Your task to perform on an android device: find photos in the google photos app Image 0: 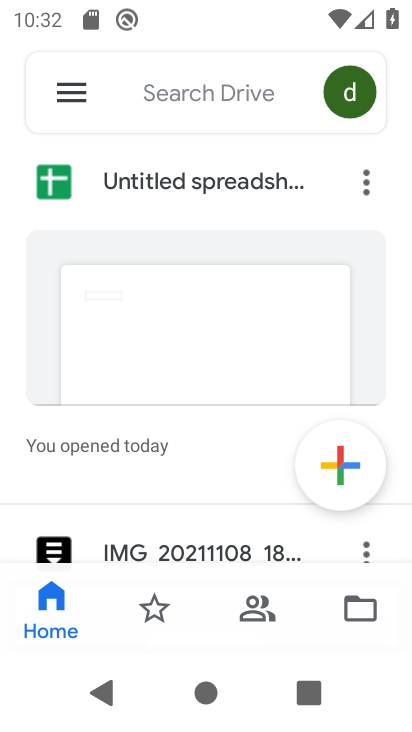
Step 0: press home button
Your task to perform on an android device: find photos in the google photos app Image 1: 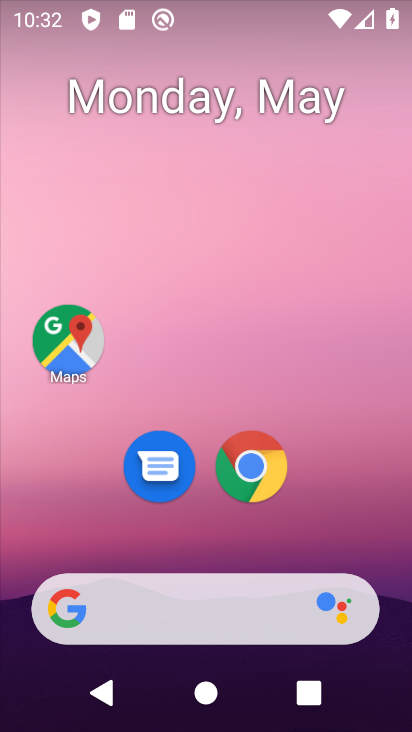
Step 1: click (229, 183)
Your task to perform on an android device: find photos in the google photos app Image 2: 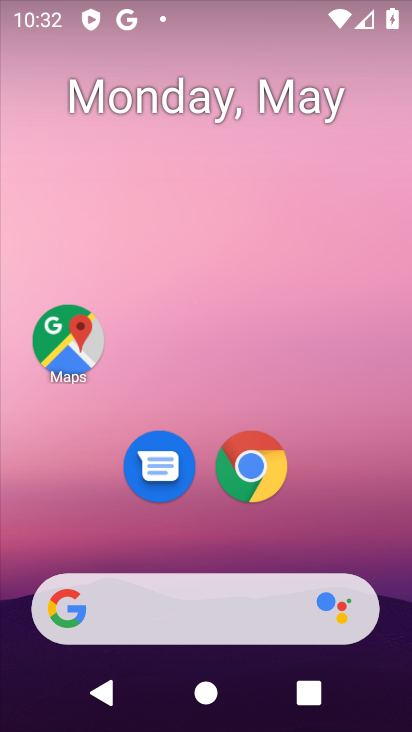
Step 2: drag from (314, 535) to (269, 50)
Your task to perform on an android device: find photos in the google photos app Image 3: 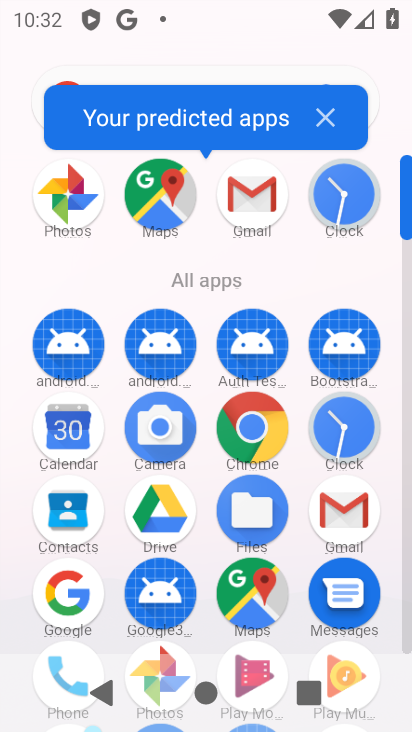
Step 3: click (50, 199)
Your task to perform on an android device: find photos in the google photos app Image 4: 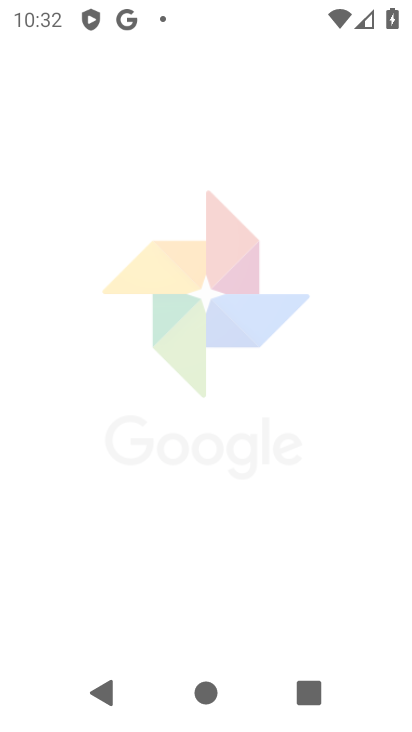
Step 4: click (74, 196)
Your task to perform on an android device: find photos in the google photos app Image 5: 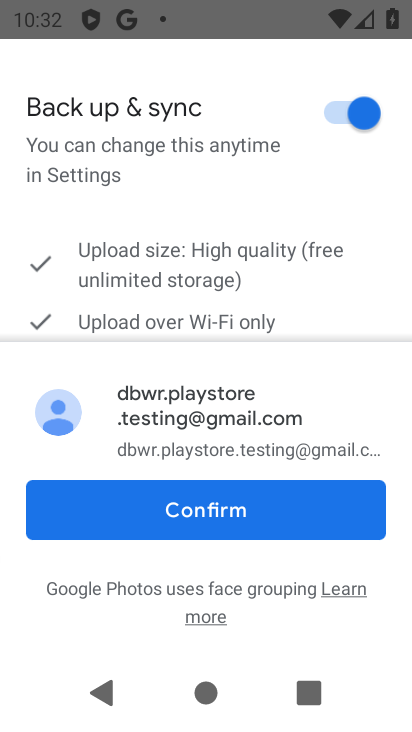
Step 5: click (191, 529)
Your task to perform on an android device: find photos in the google photos app Image 6: 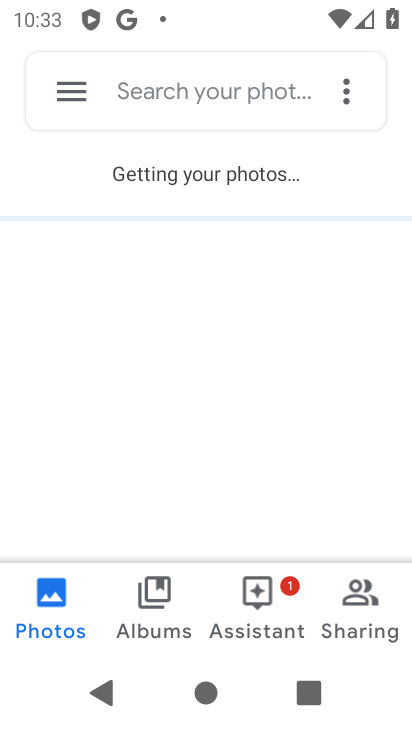
Step 6: click (178, 102)
Your task to perform on an android device: find photos in the google photos app Image 7: 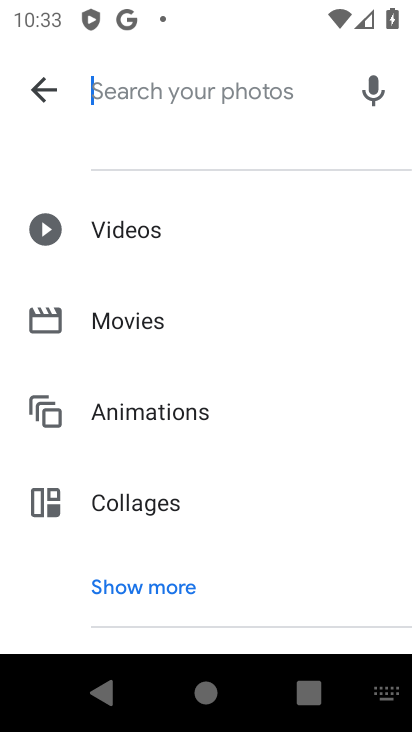
Step 7: task complete